Your task to perform on an android device: What's on my calendar tomorrow? Image 0: 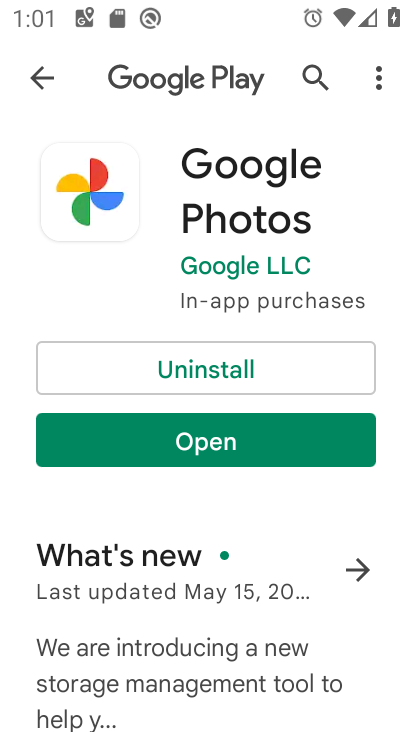
Step 0: press home button
Your task to perform on an android device: What's on my calendar tomorrow? Image 1: 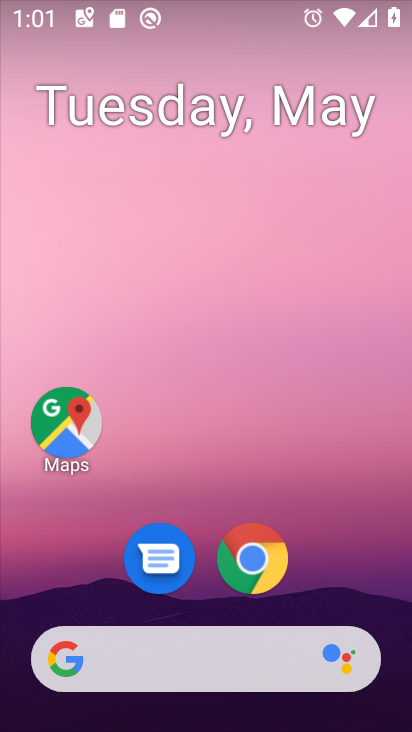
Step 1: drag from (365, 618) to (263, 160)
Your task to perform on an android device: What's on my calendar tomorrow? Image 2: 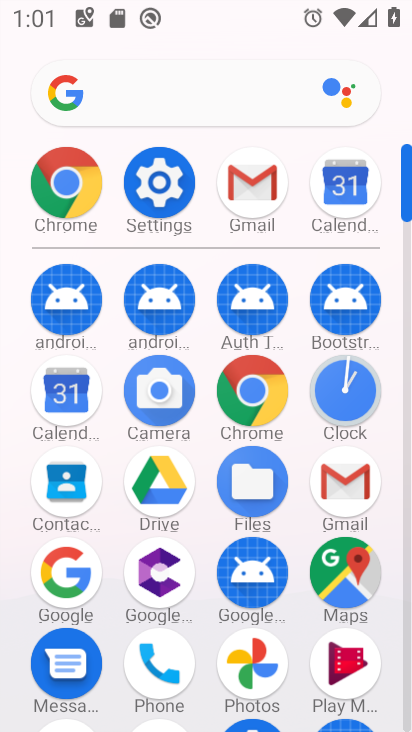
Step 2: click (346, 195)
Your task to perform on an android device: What's on my calendar tomorrow? Image 3: 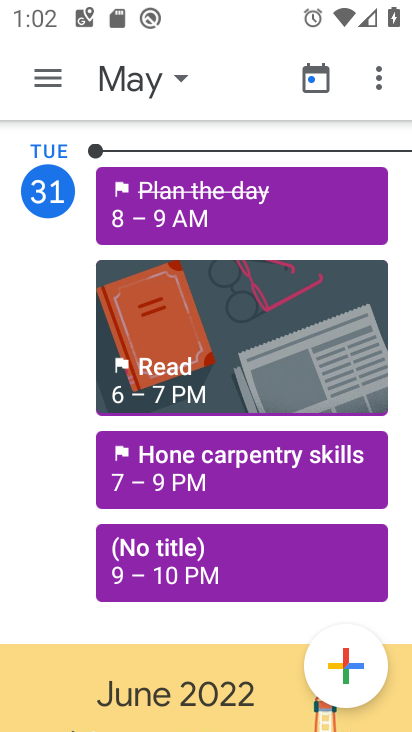
Step 3: click (112, 80)
Your task to perform on an android device: What's on my calendar tomorrow? Image 4: 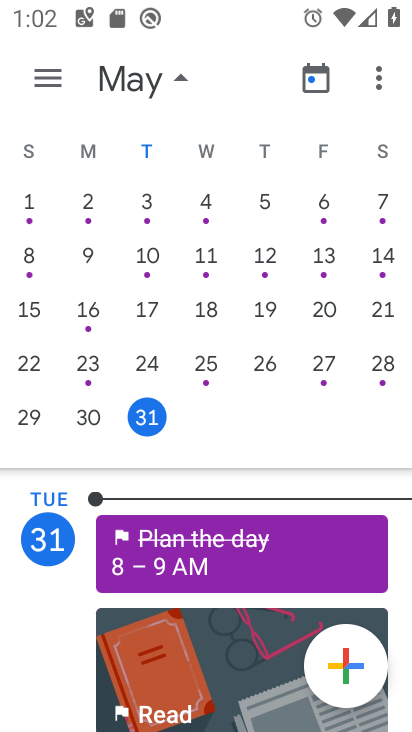
Step 4: drag from (402, 225) to (6, 258)
Your task to perform on an android device: What's on my calendar tomorrow? Image 5: 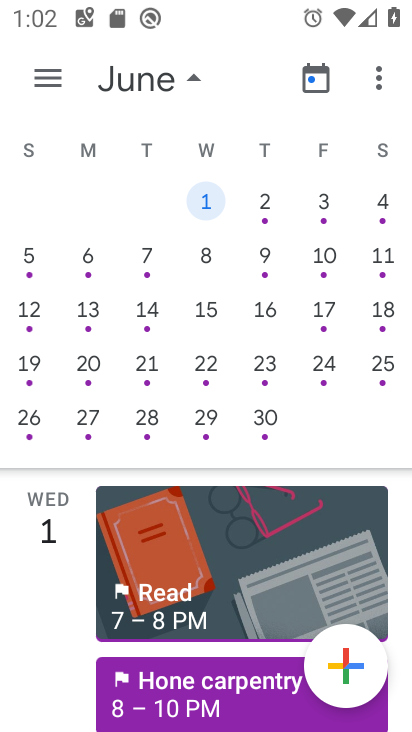
Step 5: click (213, 202)
Your task to perform on an android device: What's on my calendar tomorrow? Image 6: 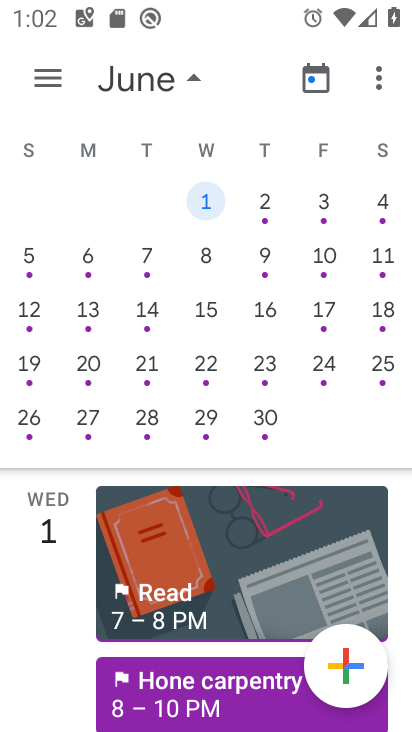
Step 6: click (171, 64)
Your task to perform on an android device: What's on my calendar tomorrow? Image 7: 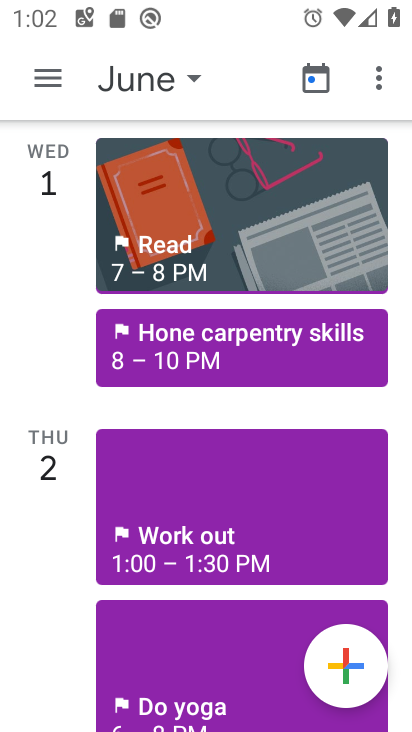
Step 7: task complete